Your task to perform on an android device: allow notifications from all sites in the chrome app Image 0: 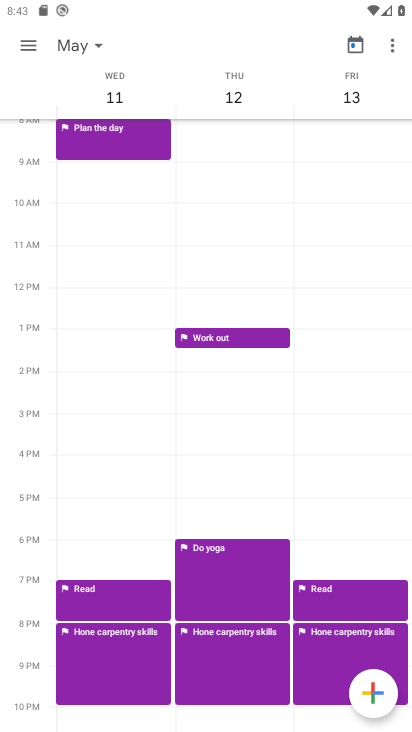
Step 0: press home button
Your task to perform on an android device: allow notifications from all sites in the chrome app Image 1: 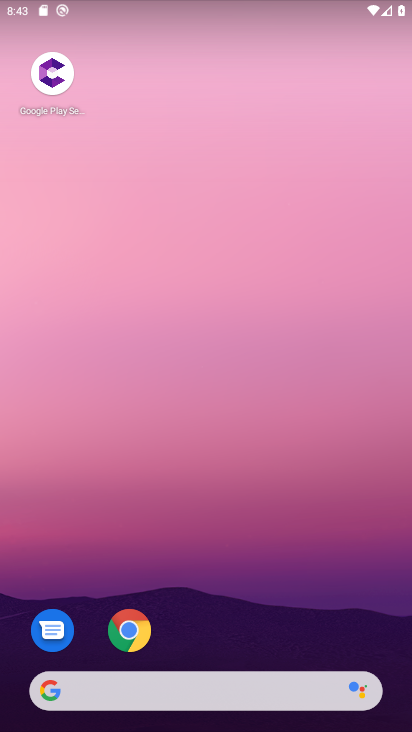
Step 1: click (138, 623)
Your task to perform on an android device: allow notifications from all sites in the chrome app Image 2: 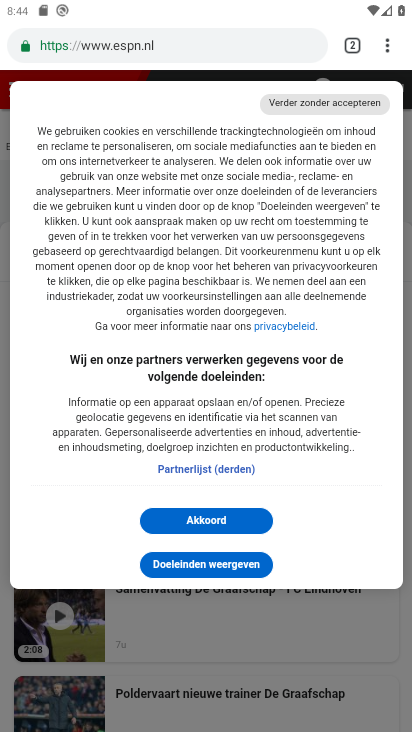
Step 2: click (387, 55)
Your task to perform on an android device: allow notifications from all sites in the chrome app Image 3: 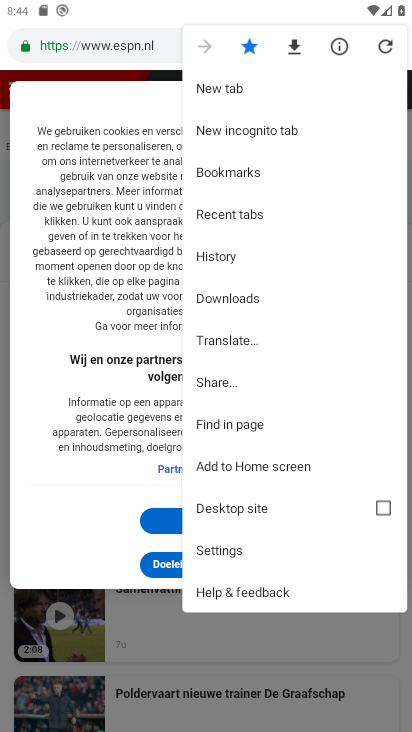
Step 3: click (224, 545)
Your task to perform on an android device: allow notifications from all sites in the chrome app Image 4: 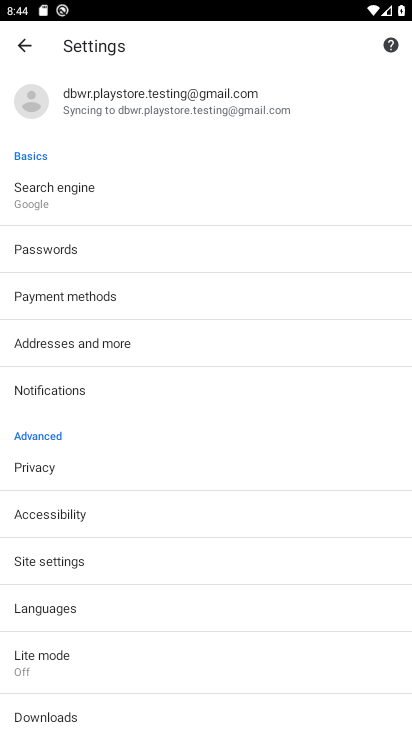
Step 4: click (88, 395)
Your task to perform on an android device: allow notifications from all sites in the chrome app Image 5: 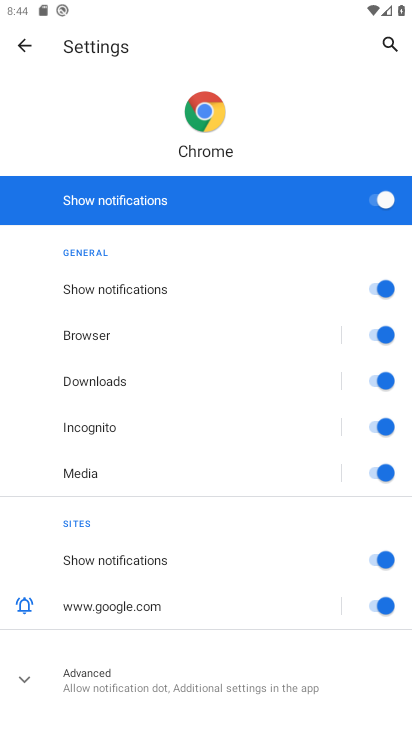
Step 5: task complete